Your task to perform on an android device: Open notification settings Image 0: 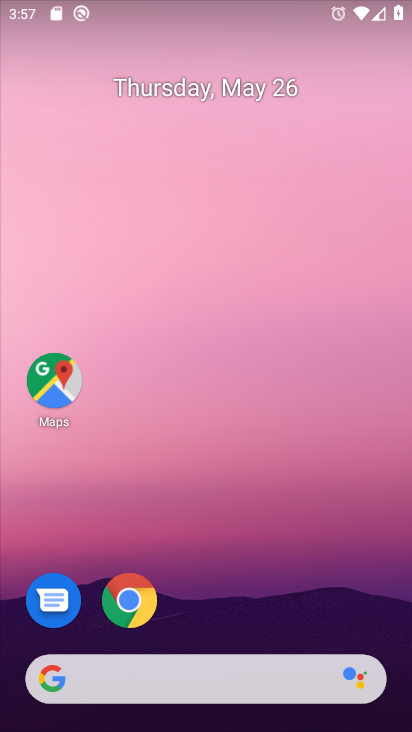
Step 0: drag from (212, 624) to (235, 118)
Your task to perform on an android device: Open notification settings Image 1: 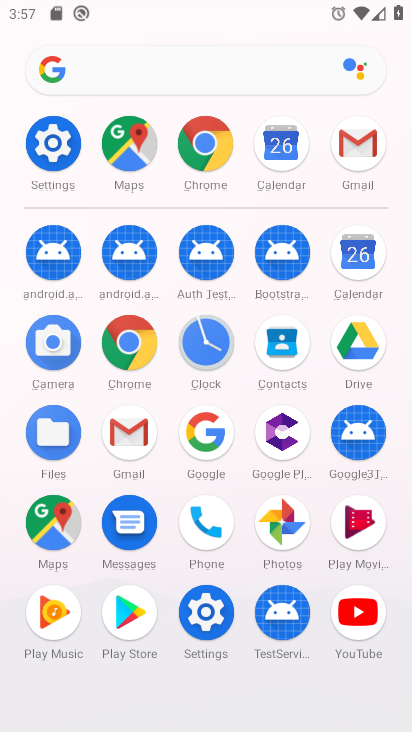
Step 1: click (62, 154)
Your task to perform on an android device: Open notification settings Image 2: 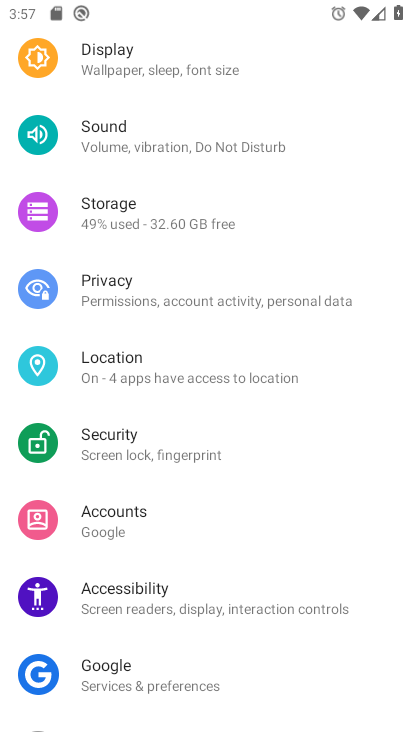
Step 2: drag from (174, 179) to (159, 654)
Your task to perform on an android device: Open notification settings Image 3: 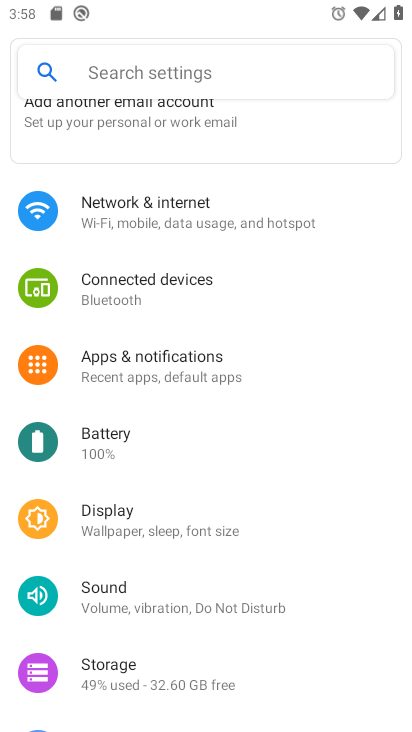
Step 3: click (159, 373)
Your task to perform on an android device: Open notification settings Image 4: 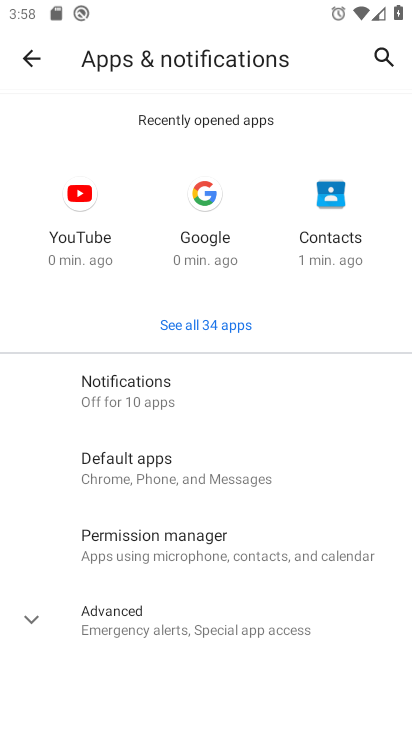
Step 4: click (146, 393)
Your task to perform on an android device: Open notification settings Image 5: 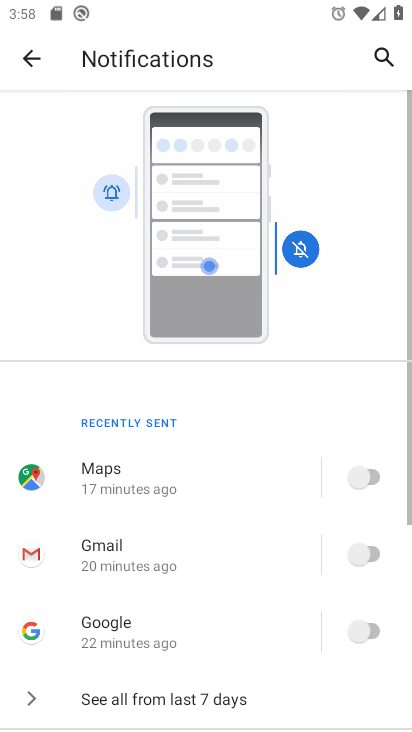
Step 5: task complete